Your task to perform on an android device: Go to Amazon Image 0: 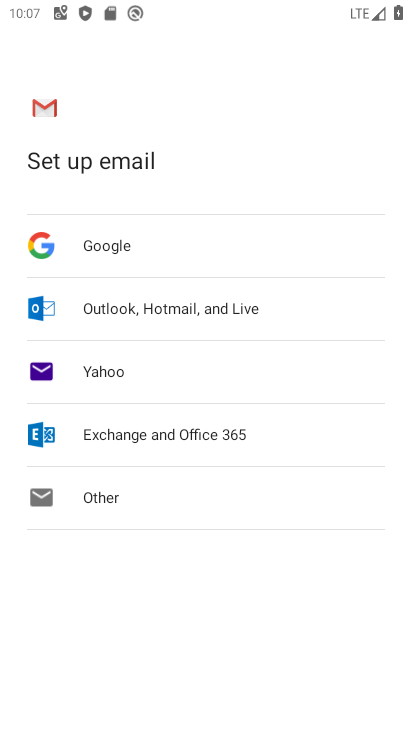
Step 0: press home button
Your task to perform on an android device: Go to Amazon Image 1: 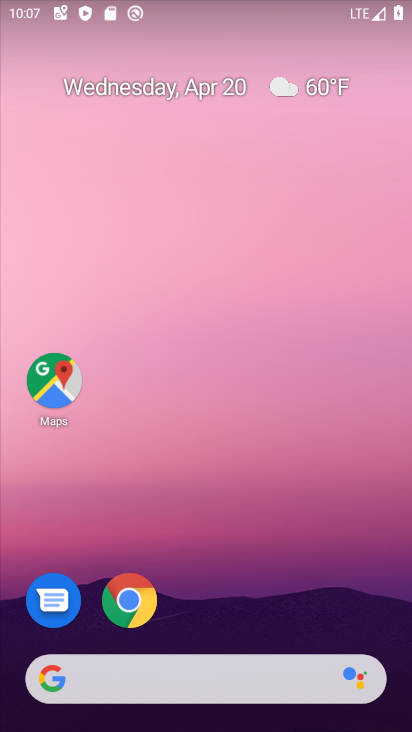
Step 1: click (126, 600)
Your task to perform on an android device: Go to Amazon Image 2: 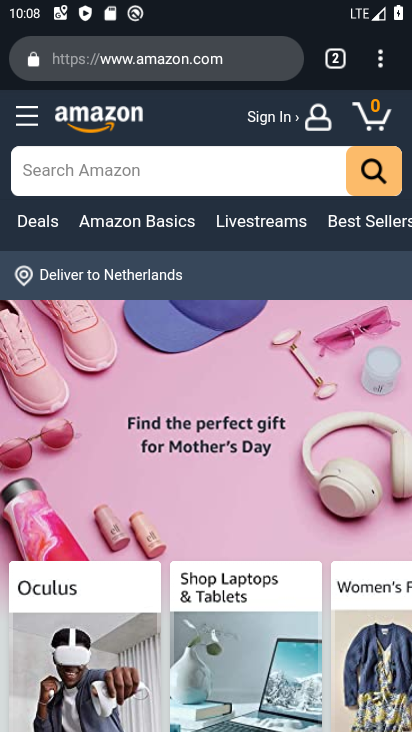
Step 2: task complete